Your task to perform on an android device: change notification settings in the gmail app Image 0: 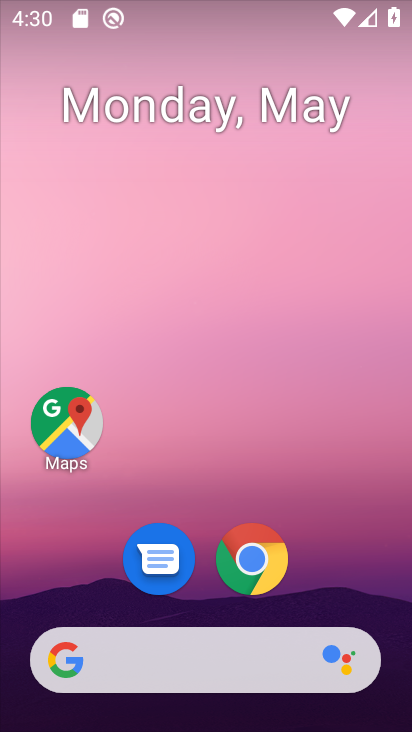
Step 0: drag from (335, 521) to (252, 9)
Your task to perform on an android device: change notification settings in the gmail app Image 1: 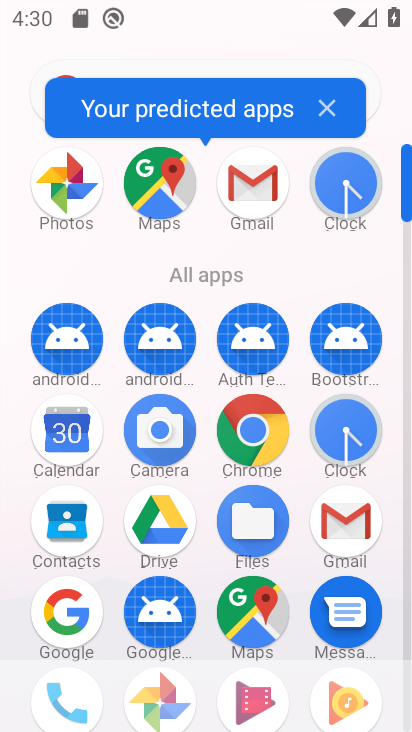
Step 1: click (265, 198)
Your task to perform on an android device: change notification settings in the gmail app Image 2: 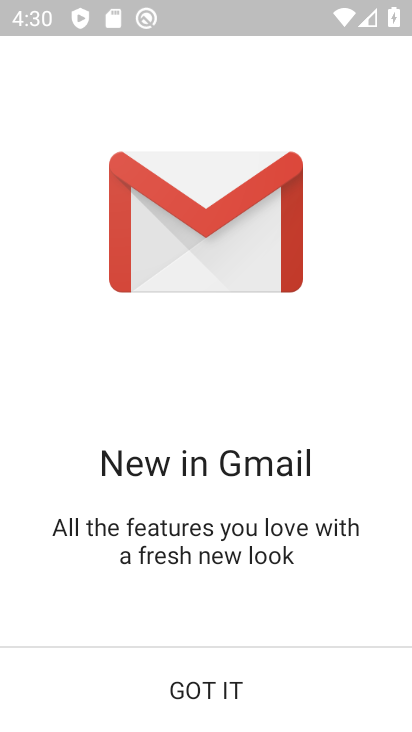
Step 2: click (198, 691)
Your task to perform on an android device: change notification settings in the gmail app Image 3: 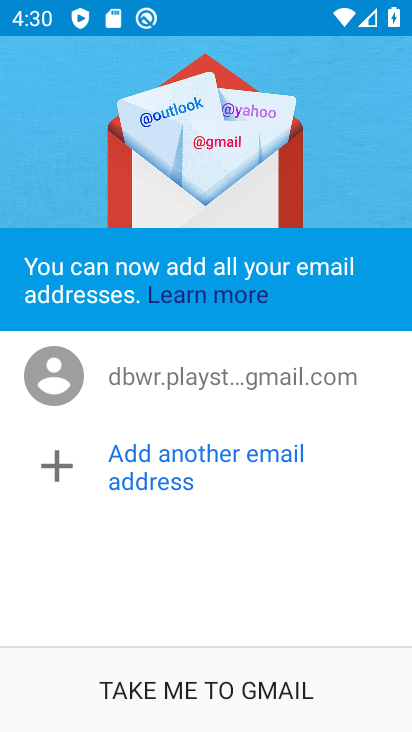
Step 3: click (198, 691)
Your task to perform on an android device: change notification settings in the gmail app Image 4: 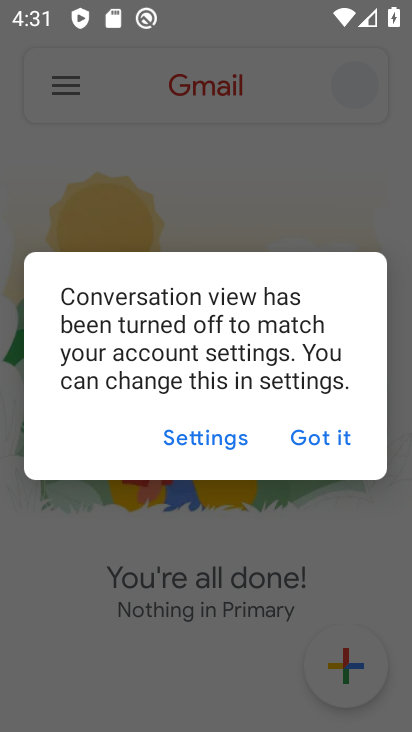
Step 4: click (317, 440)
Your task to perform on an android device: change notification settings in the gmail app Image 5: 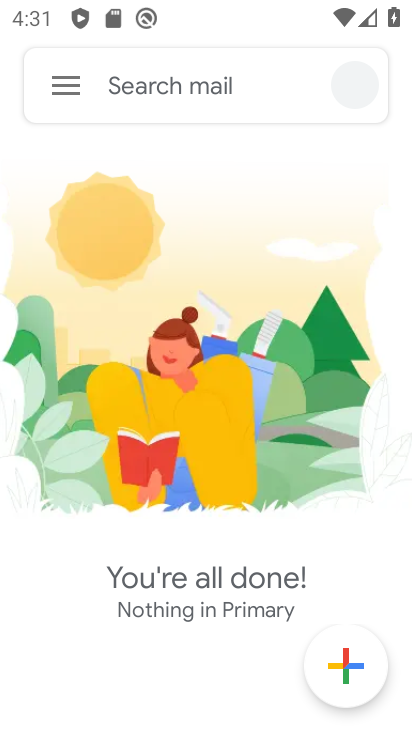
Step 5: click (62, 73)
Your task to perform on an android device: change notification settings in the gmail app Image 6: 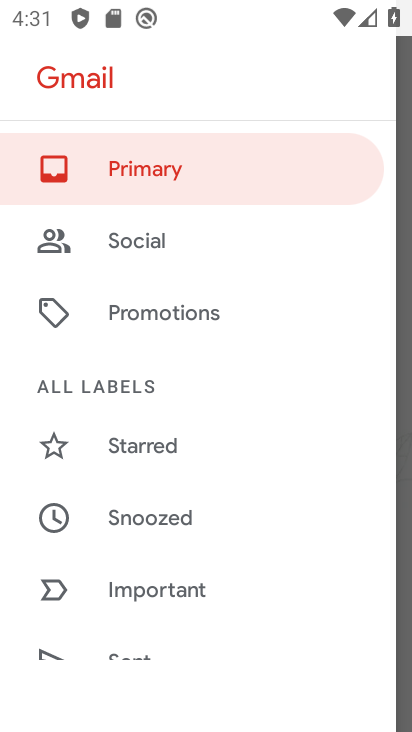
Step 6: drag from (309, 625) to (206, 145)
Your task to perform on an android device: change notification settings in the gmail app Image 7: 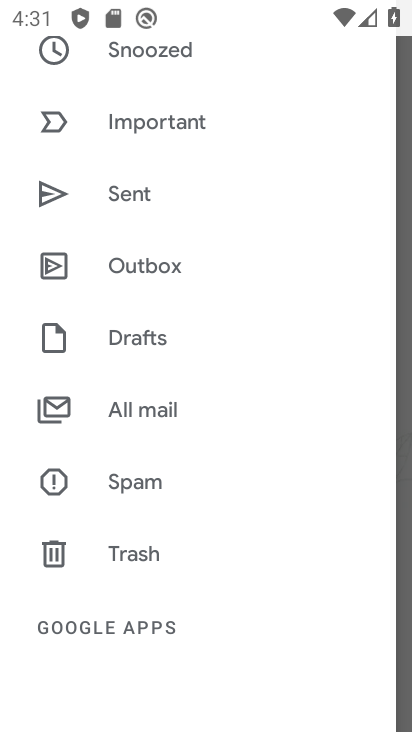
Step 7: drag from (238, 552) to (205, 208)
Your task to perform on an android device: change notification settings in the gmail app Image 8: 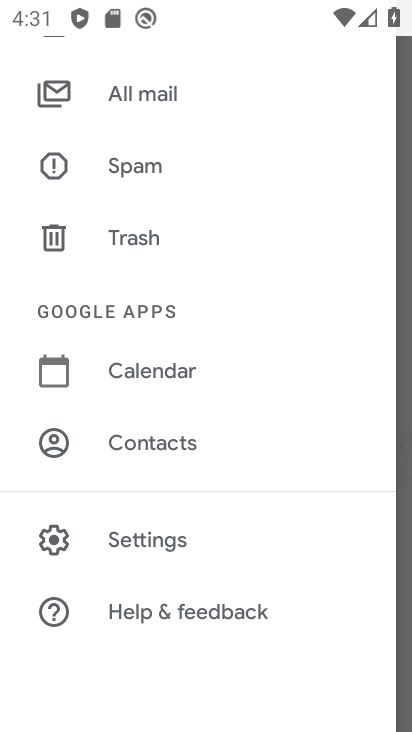
Step 8: click (132, 536)
Your task to perform on an android device: change notification settings in the gmail app Image 9: 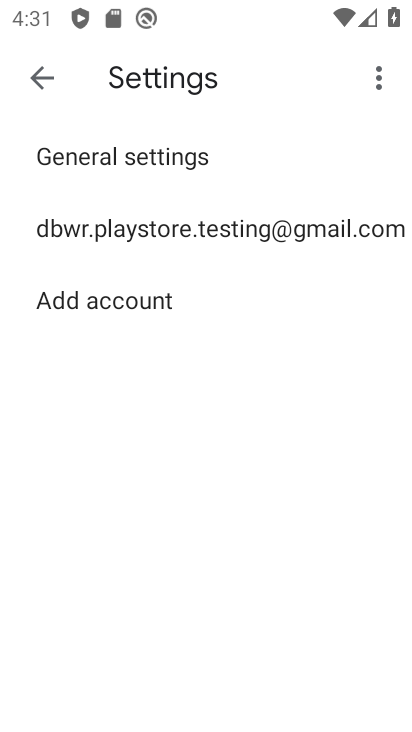
Step 9: click (100, 158)
Your task to perform on an android device: change notification settings in the gmail app Image 10: 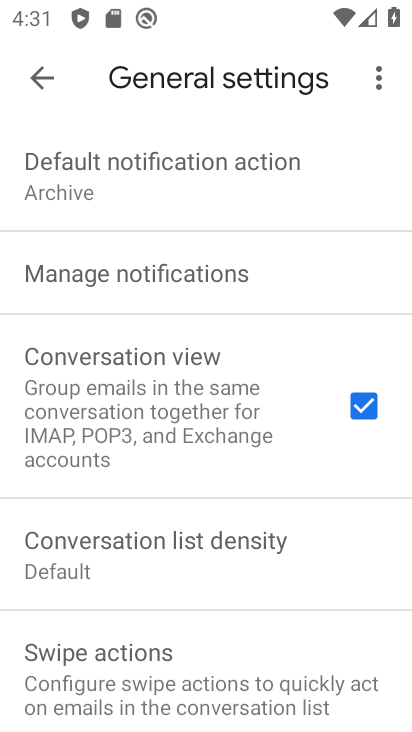
Step 10: click (110, 266)
Your task to perform on an android device: change notification settings in the gmail app Image 11: 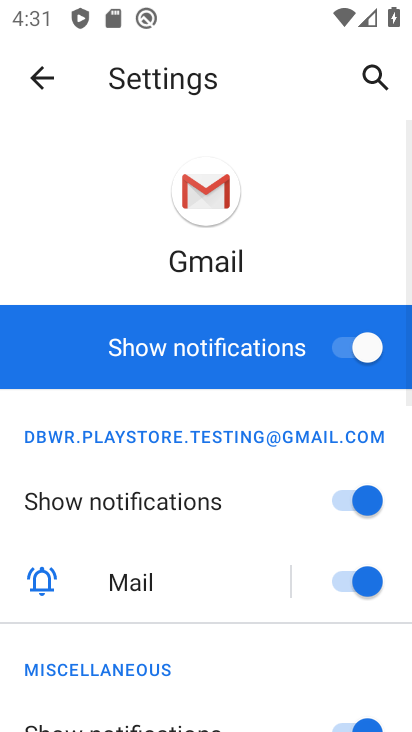
Step 11: click (358, 341)
Your task to perform on an android device: change notification settings in the gmail app Image 12: 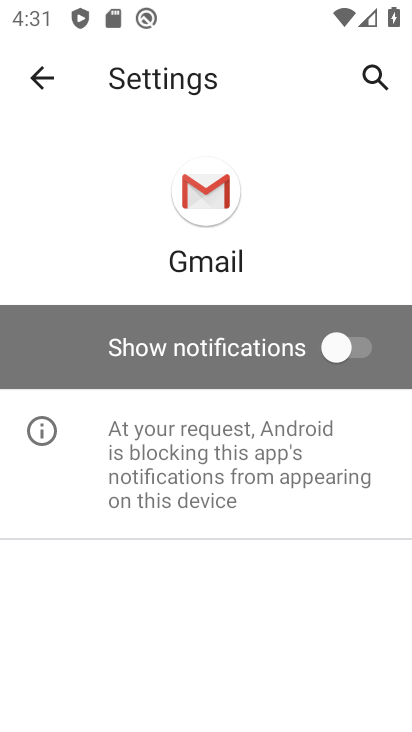
Step 12: task complete